Your task to perform on an android device: Open calendar and show me the first week of next month Image 0: 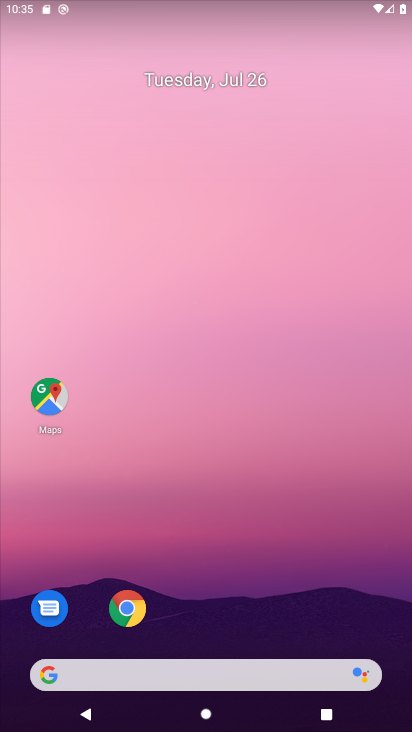
Step 0: drag from (314, 604) to (225, 11)
Your task to perform on an android device: Open calendar and show me the first week of next month Image 1: 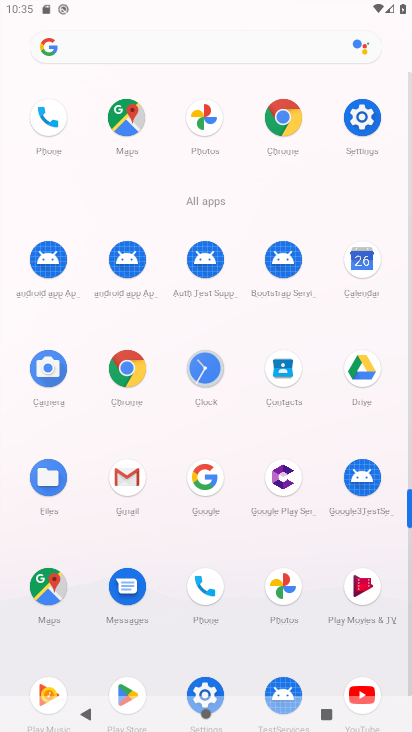
Step 1: click (353, 252)
Your task to perform on an android device: Open calendar and show me the first week of next month Image 2: 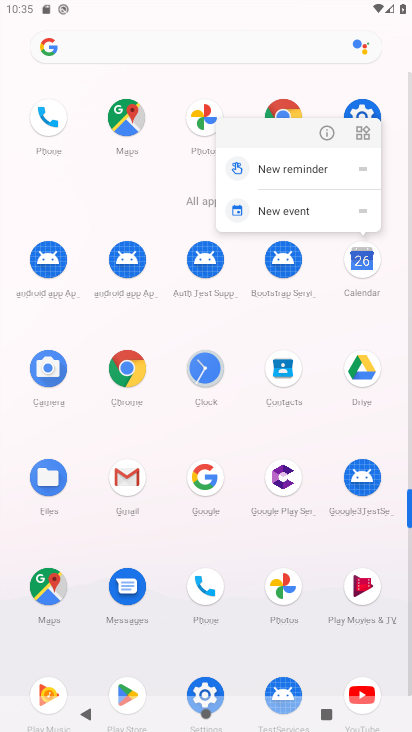
Step 2: click (365, 262)
Your task to perform on an android device: Open calendar and show me the first week of next month Image 3: 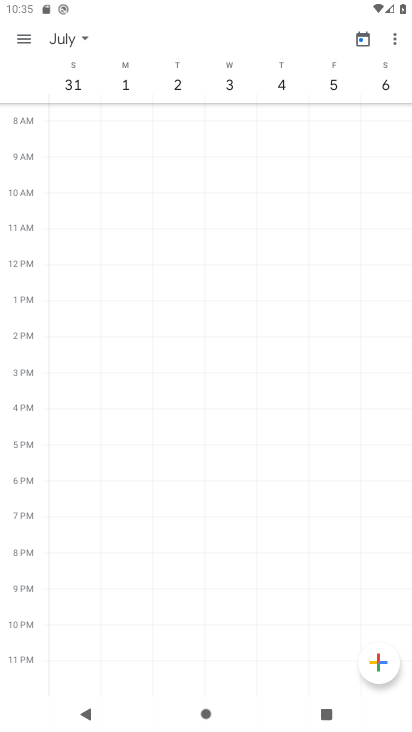
Step 3: click (64, 39)
Your task to perform on an android device: Open calendar and show me the first week of next month Image 4: 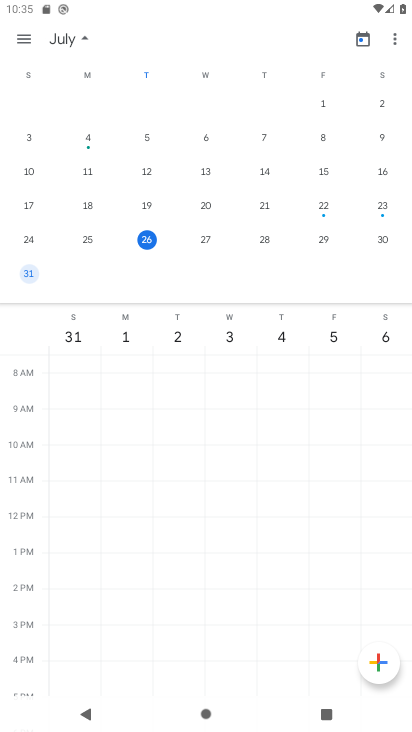
Step 4: drag from (377, 173) to (42, 172)
Your task to perform on an android device: Open calendar and show me the first week of next month Image 5: 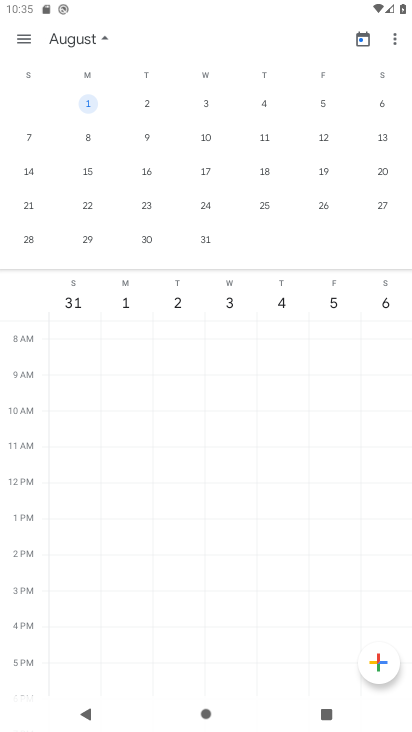
Step 5: click (202, 94)
Your task to perform on an android device: Open calendar and show me the first week of next month Image 6: 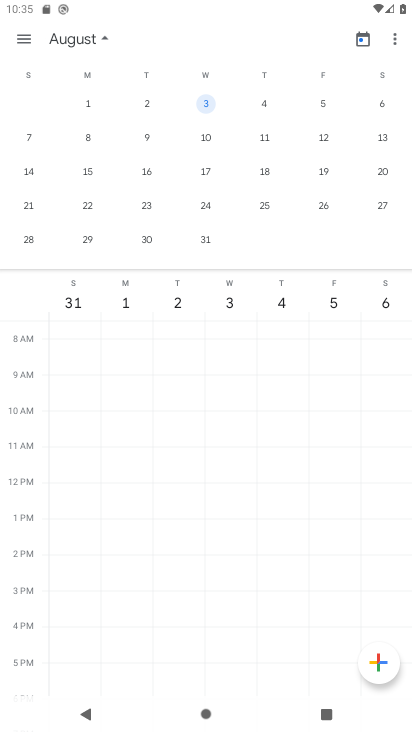
Step 6: task complete